Your task to perform on an android device: Check the weather Image 0: 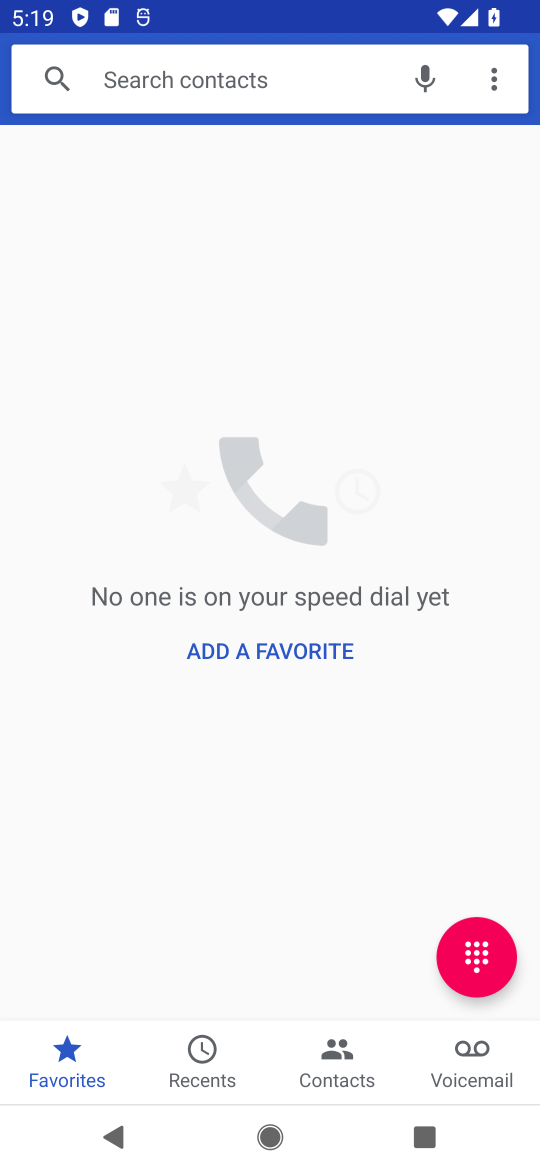
Step 0: press home button
Your task to perform on an android device: Check the weather Image 1: 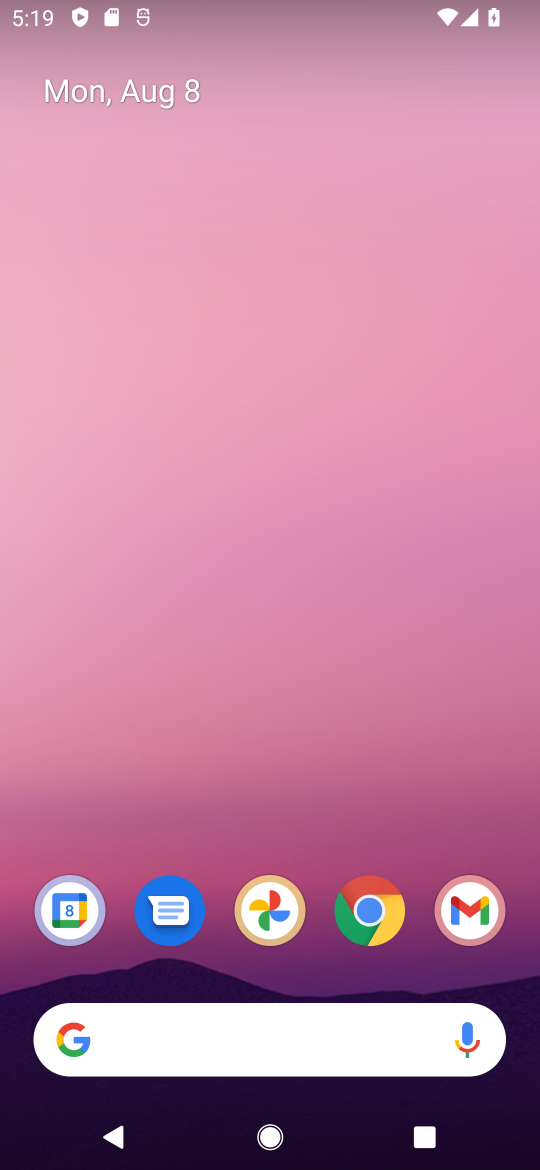
Step 1: drag from (280, 1024) to (285, 500)
Your task to perform on an android device: Check the weather Image 2: 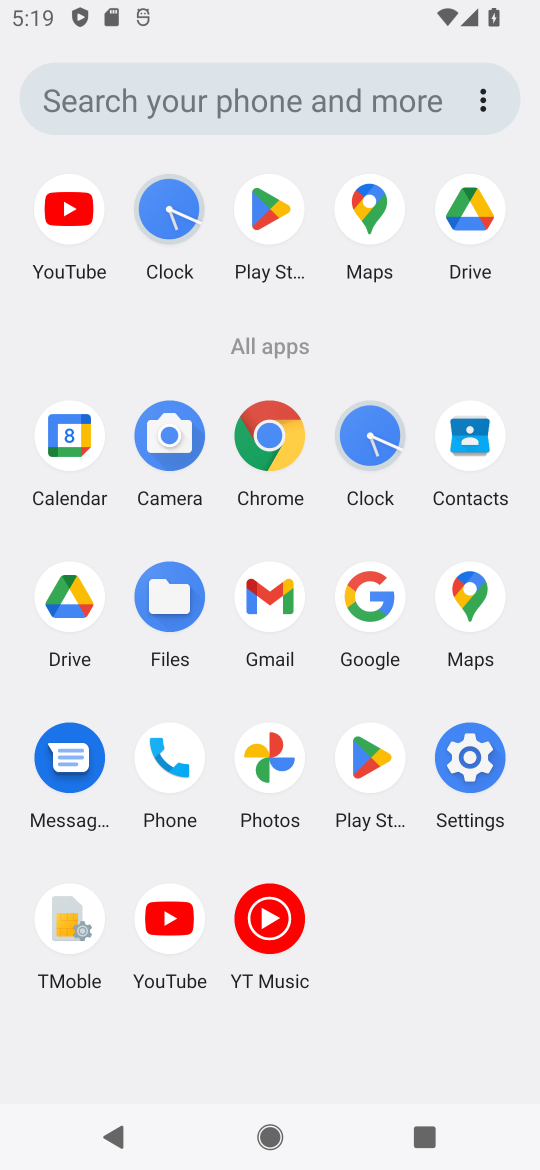
Step 2: click (370, 598)
Your task to perform on an android device: Check the weather Image 3: 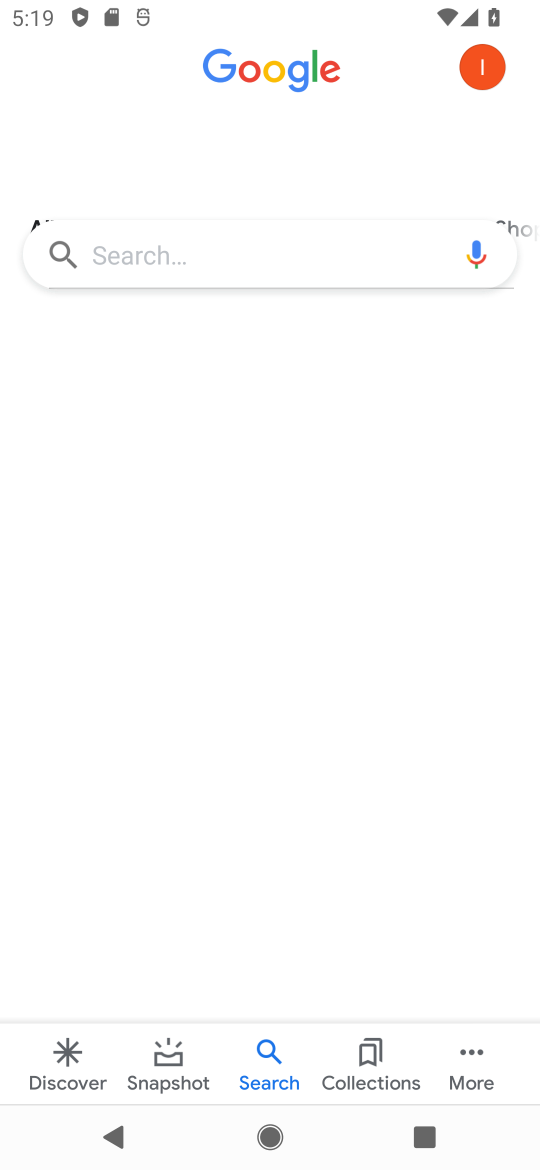
Step 3: click (300, 254)
Your task to perform on an android device: Check the weather Image 4: 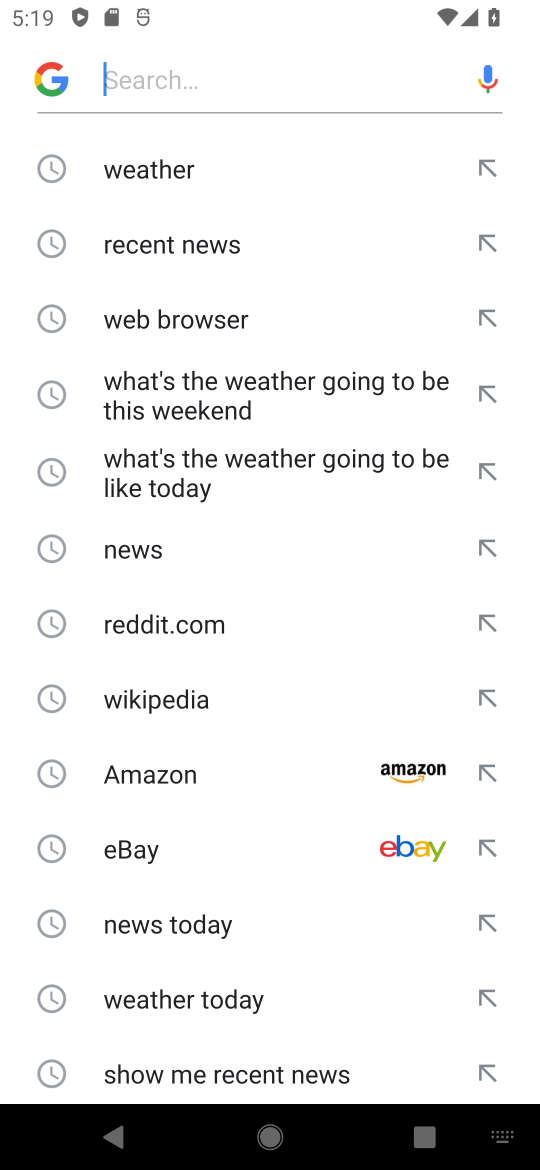
Step 4: click (176, 175)
Your task to perform on an android device: Check the weather Image 5: 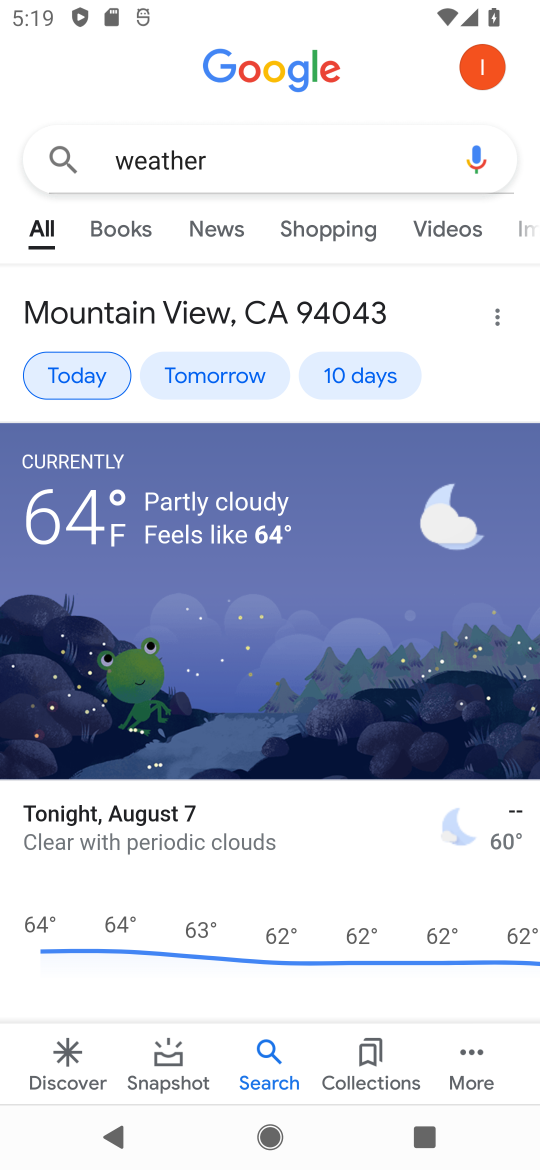
Step 5: task complete